Your task to perform on an android device: open a bookmark in the chrome app Image 0: 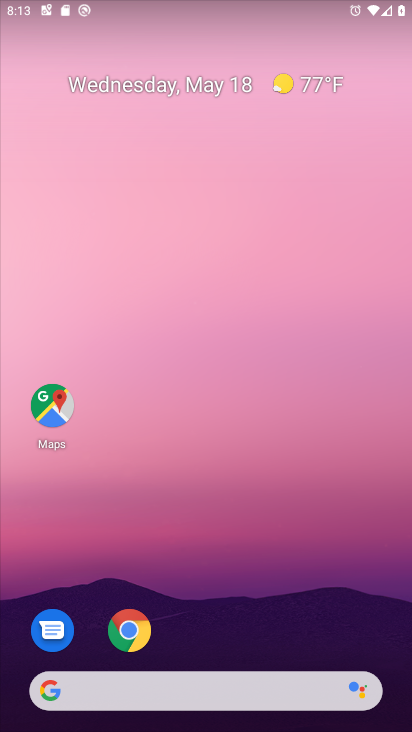
Step 0: click (144, 638)
Your task to perform on an android device: open a bookmark in the chrome app Image 1: 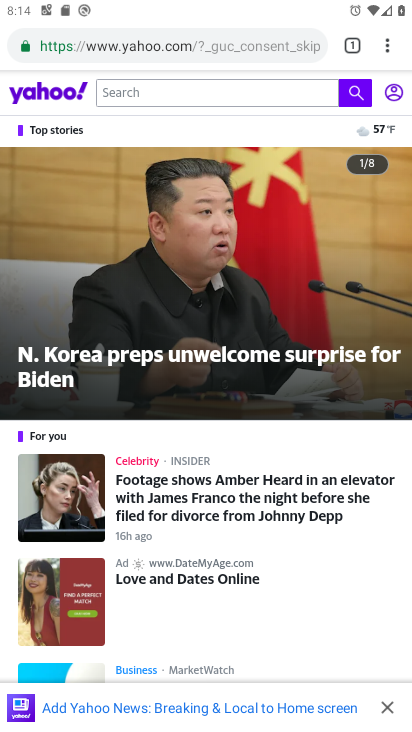
Step 1: drag from (387, 48) to (279, 174)
Your task to perform on an android device: open a bookmark in the chrome app Image 2: 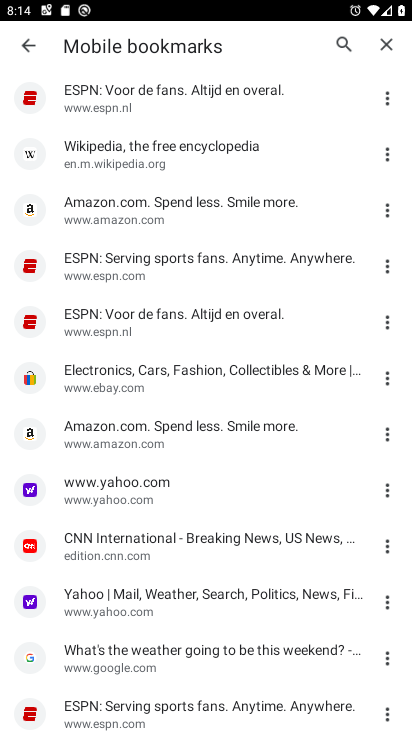
Step 2: click (151, 157)
Your task to perform on an android device: open a bookmark in the chrome app Image 3: 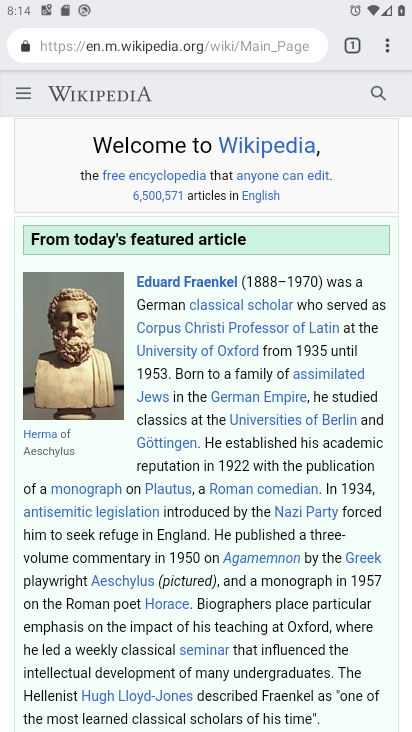
Step 3: task complete